Your task to perform on an android device: install app "Expedia: Hotels, Flights & Car" Image 0: 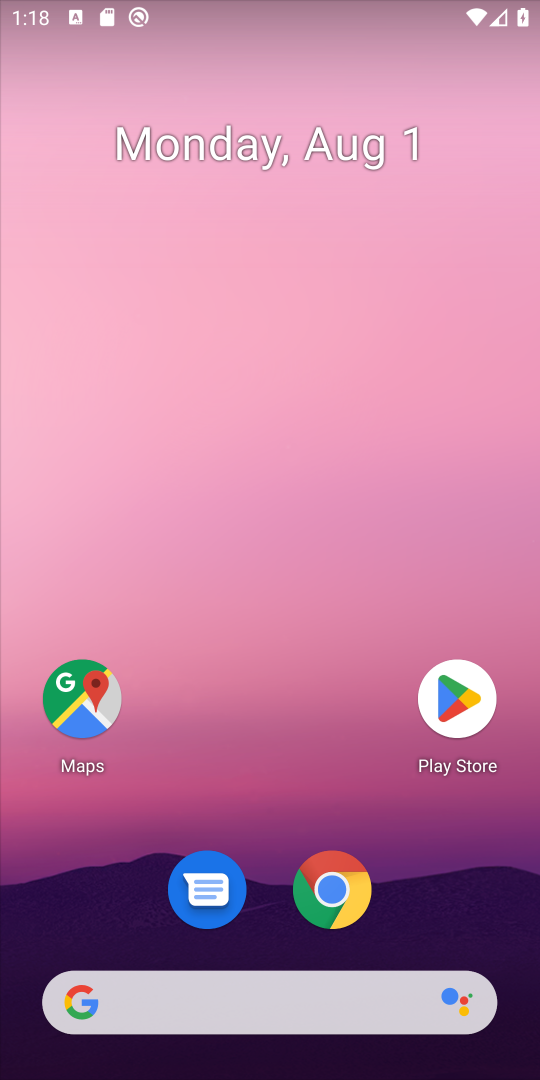
Step 0: click (442, 714)
Your task to perform on an android device: install app "Expedia: Hotels, Flights & Car" Image 1: 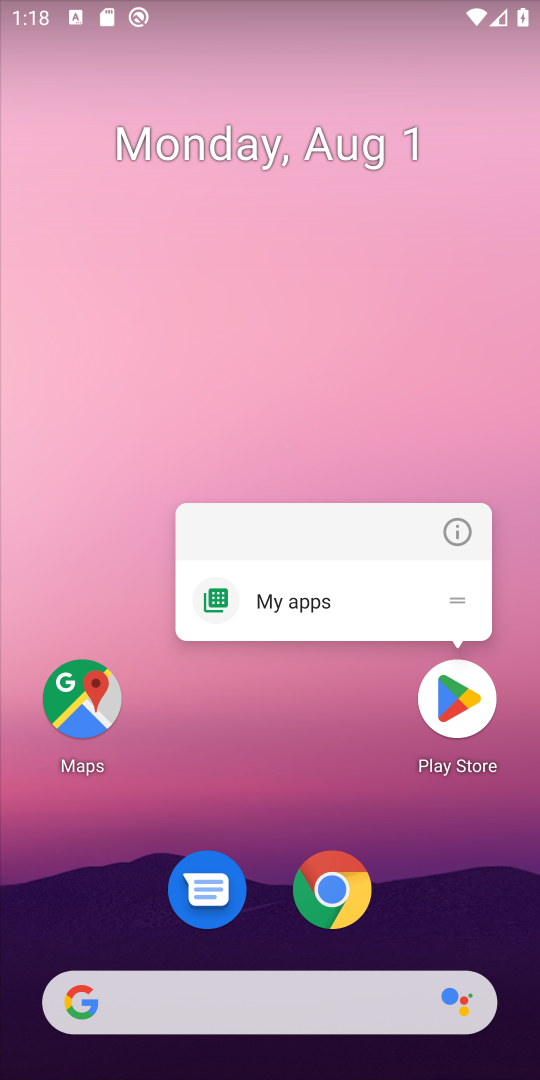
Step 1: click (442, 714)
Your task to perform on an android device: install app "Expedia: Hotels, Flights & Car" Image 2: 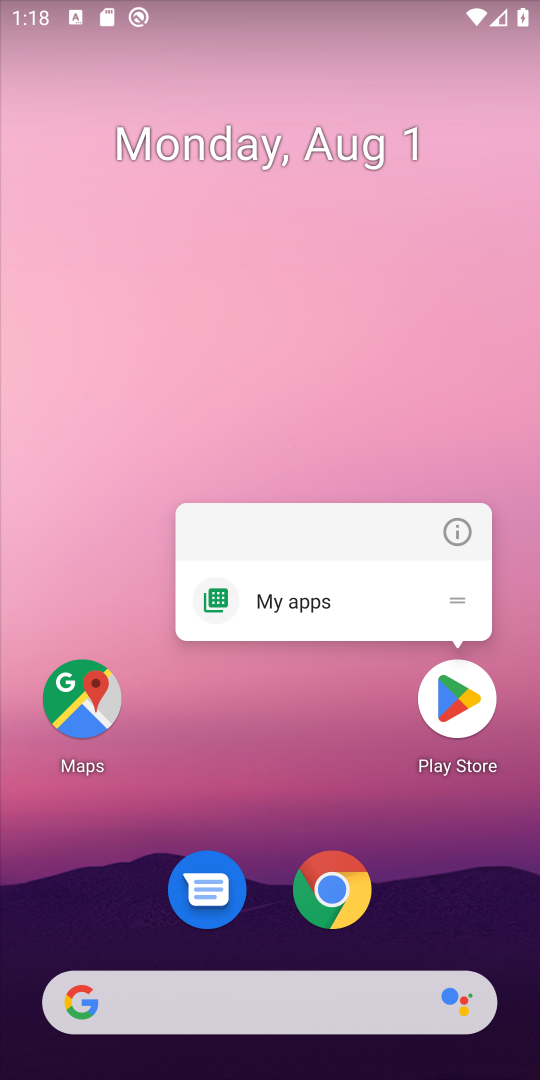
Step 2: click (442, 714)
Your task to perform on an android device: install app "Expedia: Hotels, Flights & Car" Image 3: 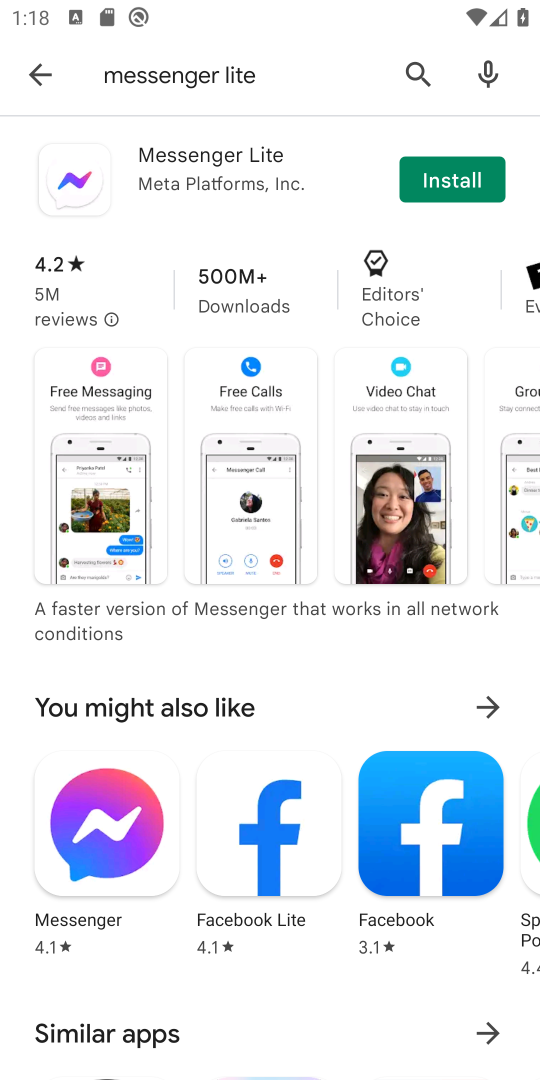
Step 3: click (411, 61)
Your task to perform on an android device: install app "Expedia: Hotels, Flights & Car" Image 4: 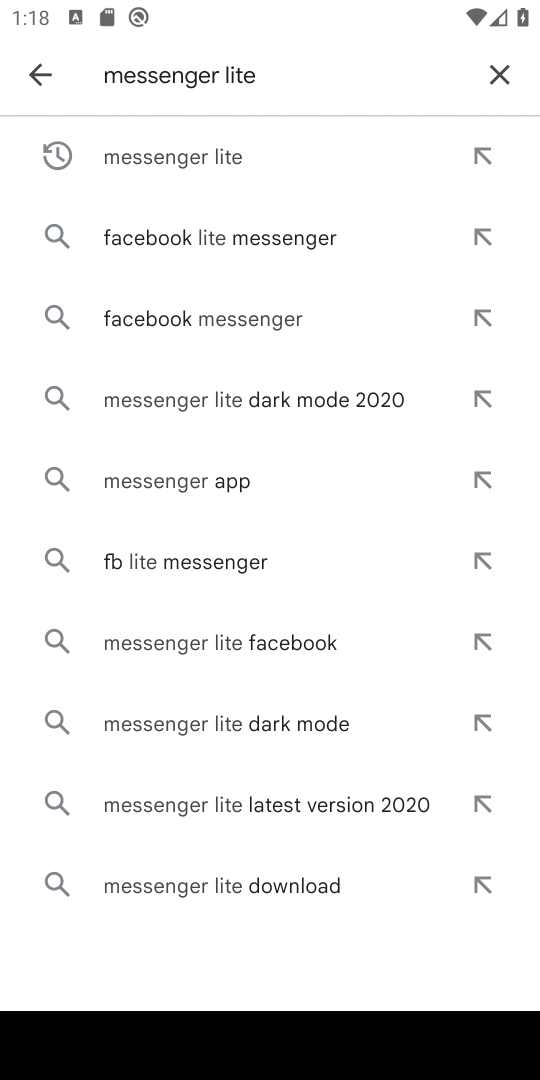
Step 4: click (486, 78)
Your task to perform on an android device: install app "Expedia: Hotels, Flights & Car" Image 5: 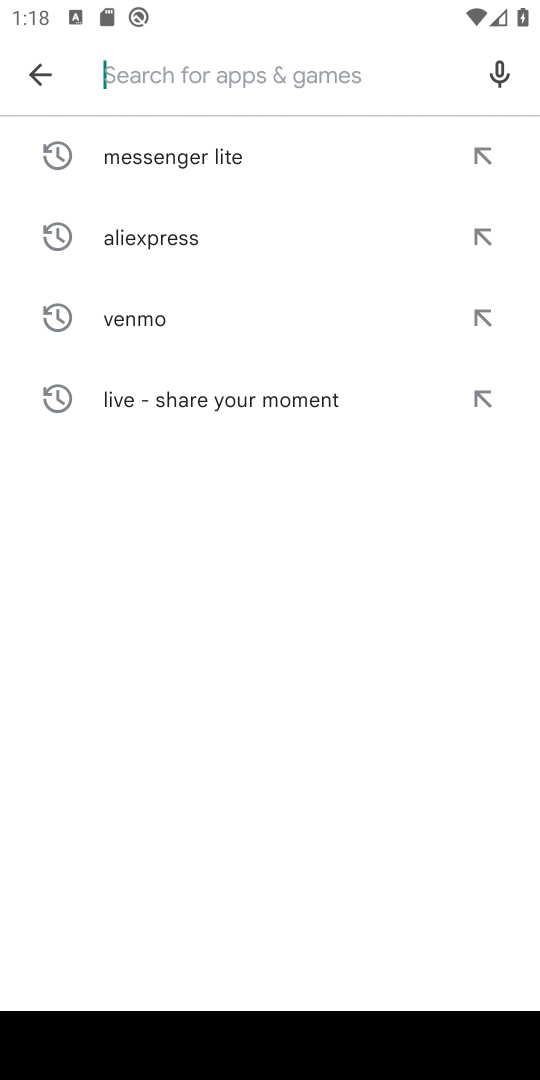
Step 5: type "Expedia: Hotels, Flights & Car"
Your task to perform on an android device: install app "Expedia: Hotels, Flights & Car" Image 6: 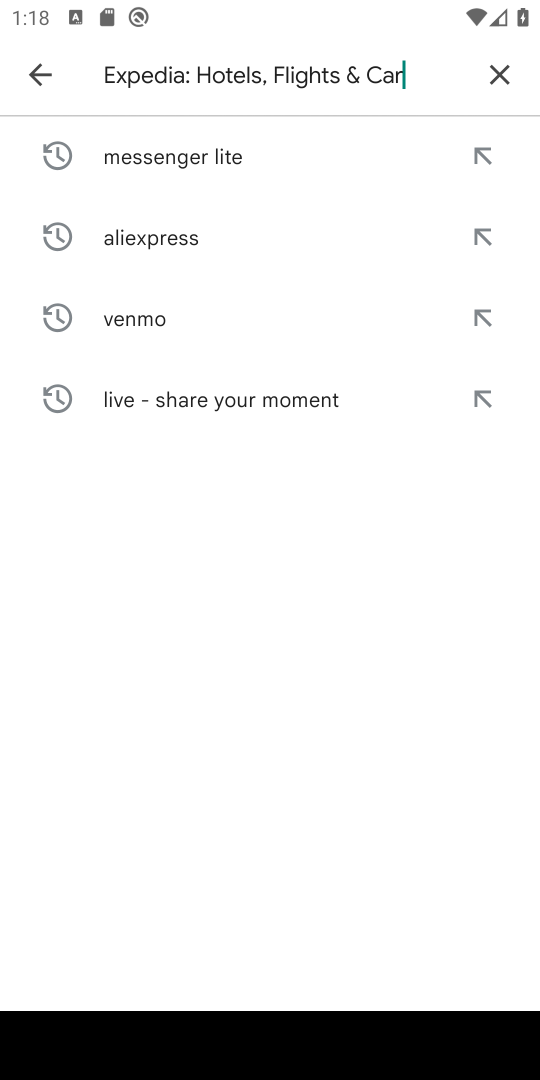
Step 6: type ""
Your task to perform on an android device: install app "Expedia: Hotels, Flights & Car" Image 7: 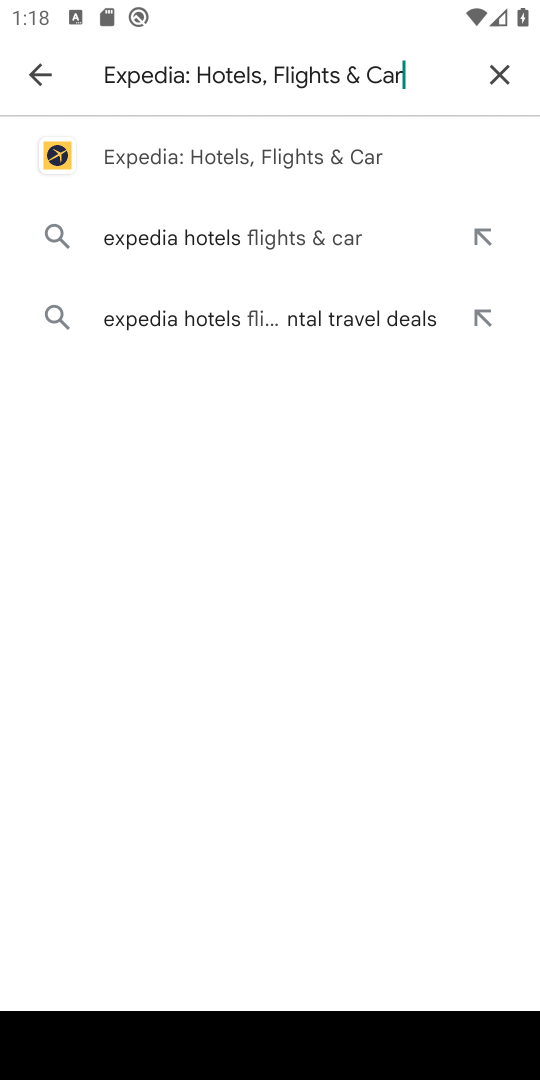
Step 7: click (253, 165)
Your task to perform on an android device: install app "Expedia: Hotels, Flights & Car" Image 8: 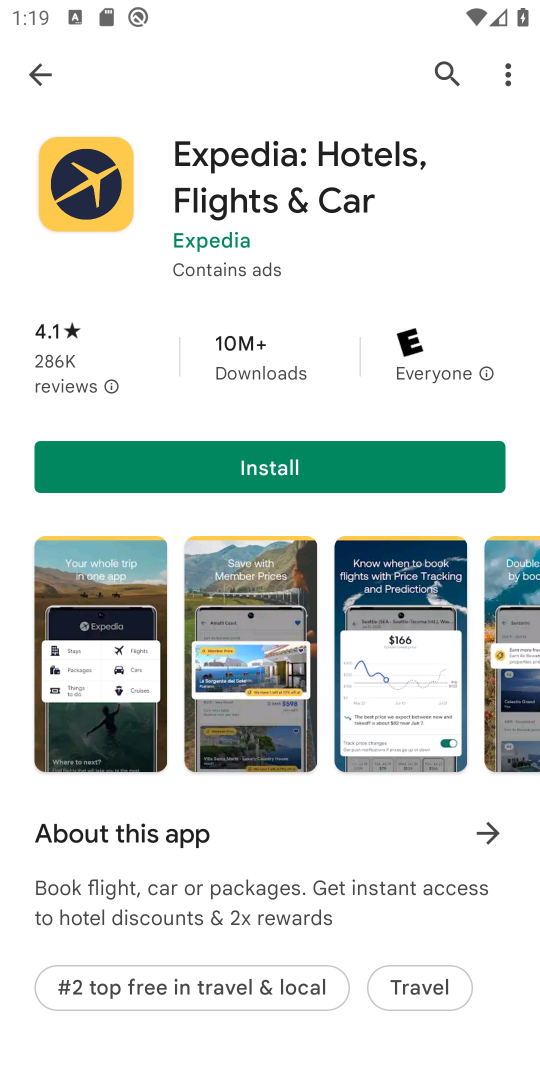
Step 8: click (211, 446)
Your task to perform on an android device: install app "Expedia: Hotels, Flights & Car" Image 9: 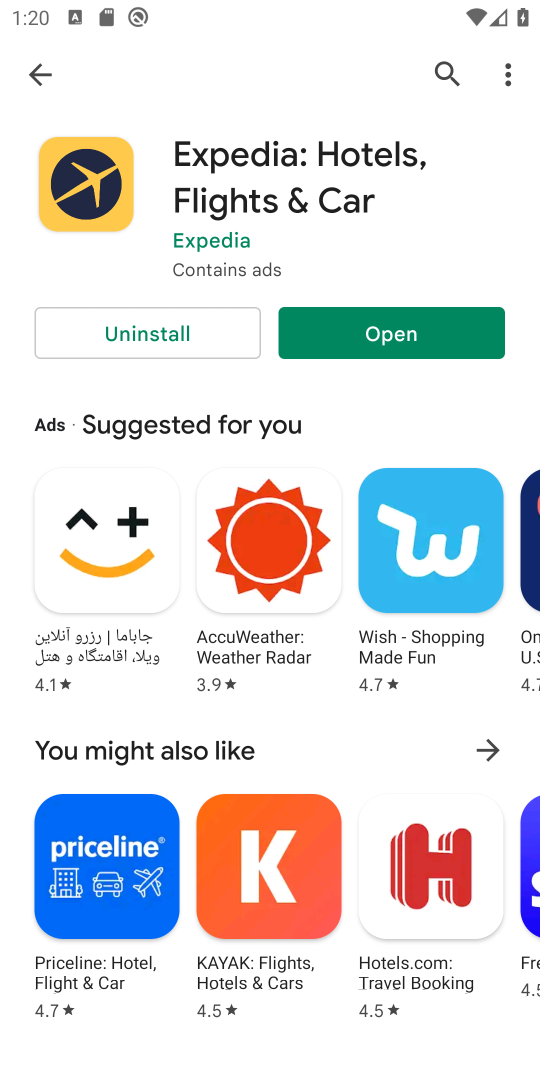
Step 9: task complete